Your task to perform on an android device: Open calendar and show me the second week of next month Image 0: 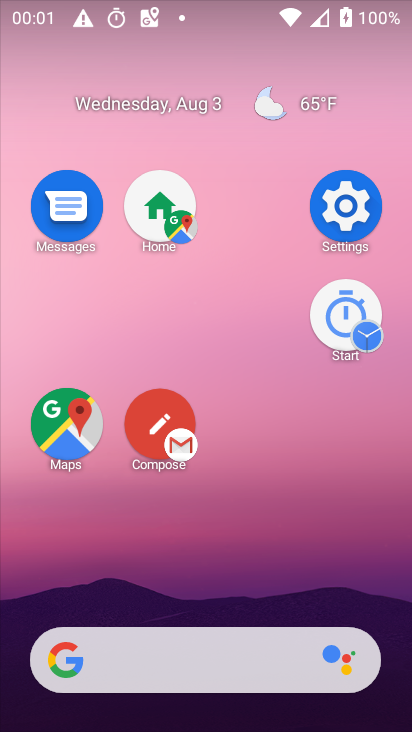
Step 0: drag from (322, 722) to (270, 198)
Your task to perform on an android device: Open calendar and show me the second week of next month Image 1: 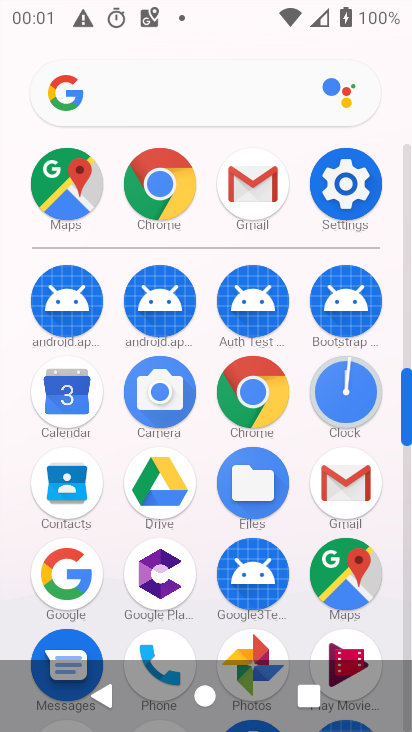
Step 1: drag from (331, 648) to (349, 348)
Your task to perform on an android device: Open calendar and show me the second week of next month Image 2: 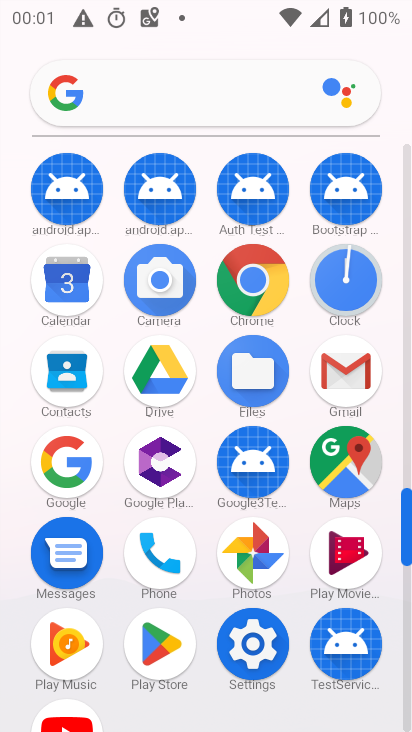
Step 2: click (77, 271)
Your task to perform on an android device: Open calendar and show me the second week of next month Image 3: 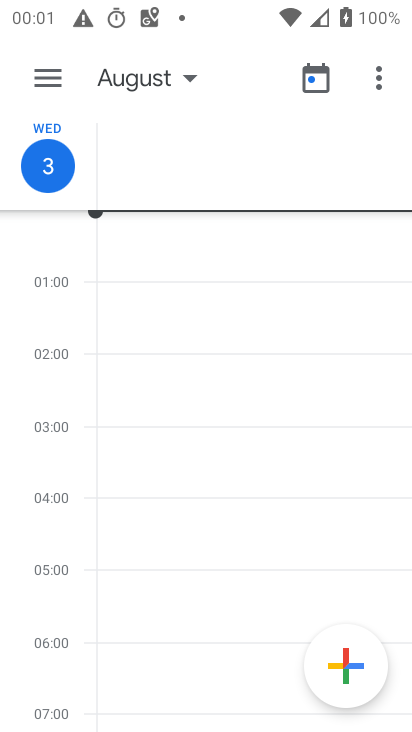
Step 3: click (173, 73)
Your task to perform on an android device: Open calendar and show me the second week of next month Image 4: 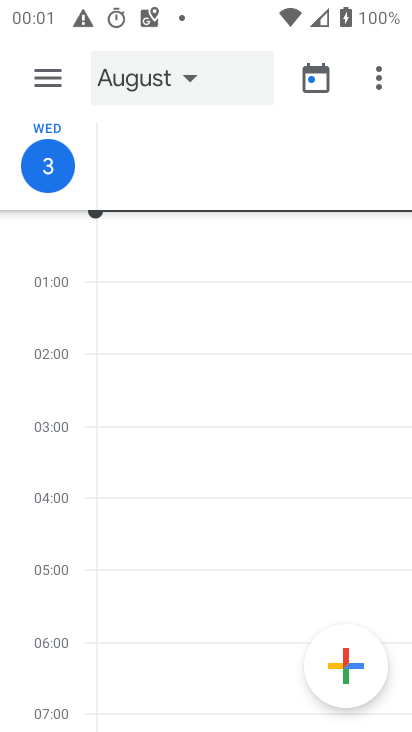
Step 4: click (187, 90)
Your task to perform on an android device: Open calendar and show me the second week of next month Image 5: 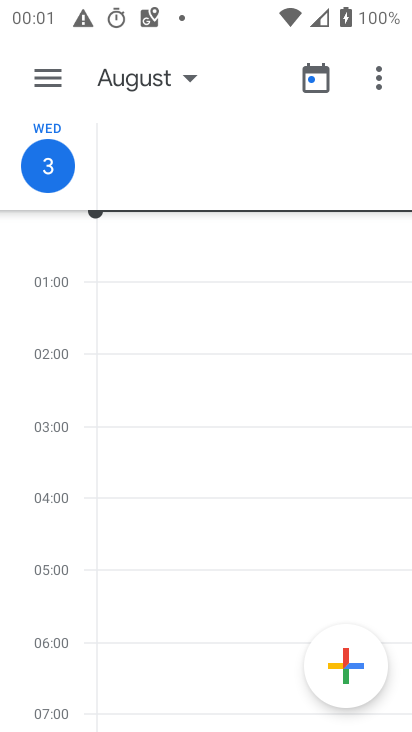
Step 5: click (190, 76)
Your task to perform on an android device: Open calendar and show me the second week of next month Image 6: 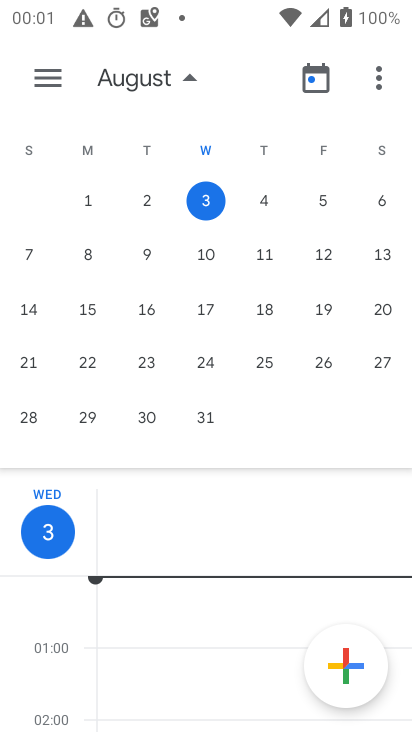
Step 6: drag from (354, 274) to (12, 268)
Your task to perform on an android device: Open calendar and show me the second week of next month Image 7: 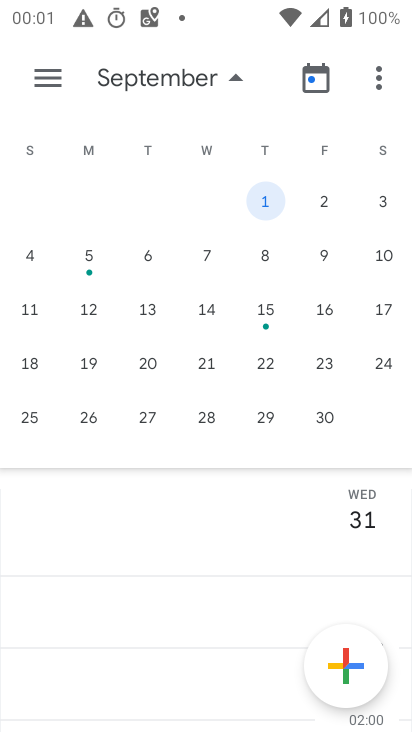
Step 7: drag from (206, 321) to (17, 256)
Your task to perform on an android device: Open calendar and show me the second week of next month Image 8: 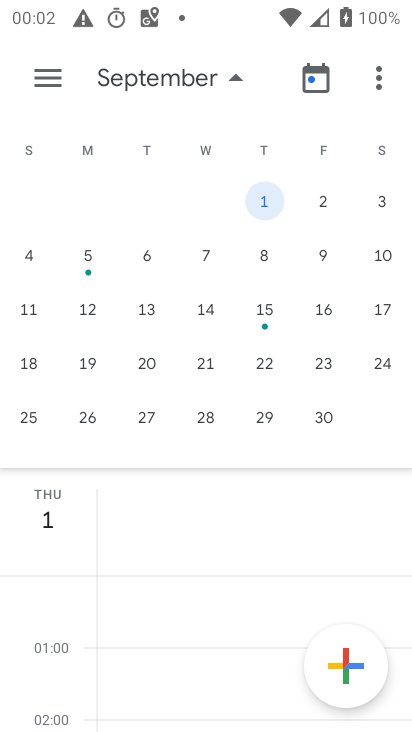
Step 8: click (259, 251)
Your task to perform on an android device: Open calendar and show me the second week of next month Image 9: 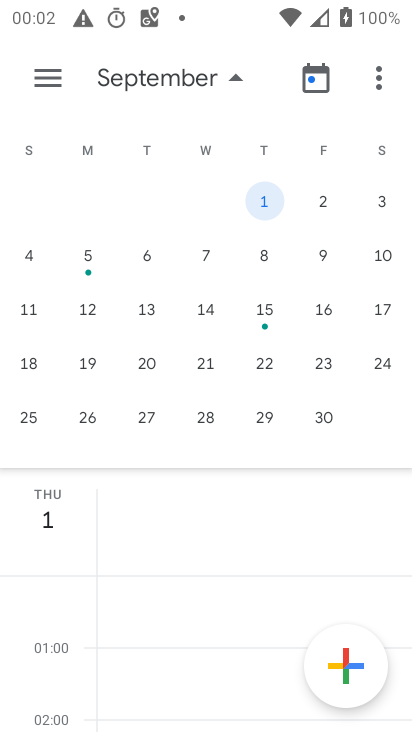
Step 9: click (262, 252)
Your task to perform on an android device: Open calendar and show me the second week of next month Image 10: 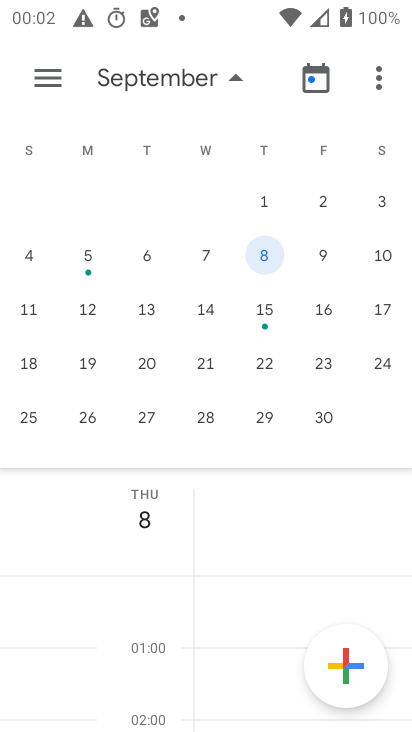
Step 10: click (263, 253)
Your task to perform on an android device: Open calendar and show me the second week of next month Image 11: 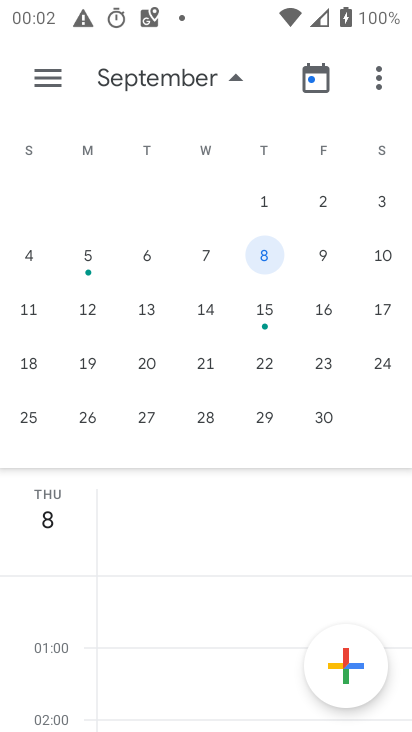
Step 11: click (262, 254)
Your task to perform on an android device: Open calendar and show me the second week of next month Image 12: 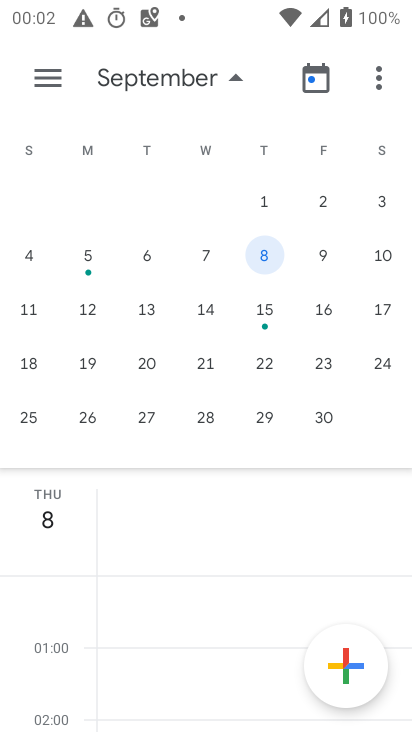
Step 12: task complete